Your task to perform on an android device: search for starred emails in the gmail app Image 0: 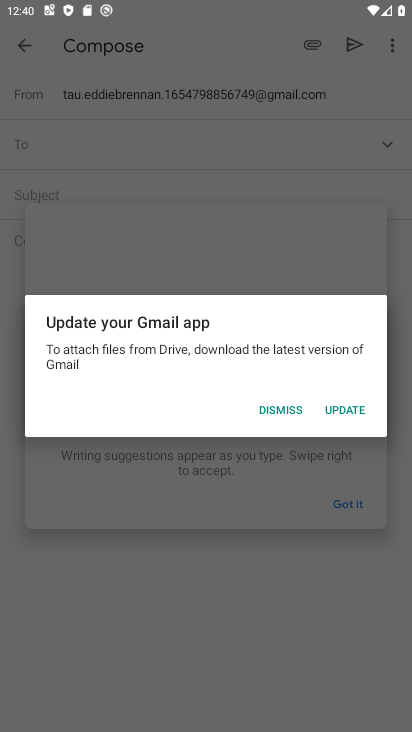
Step 0: press home button
Your task to perform on an android device: search for starred emails in the gmail app Image 1: 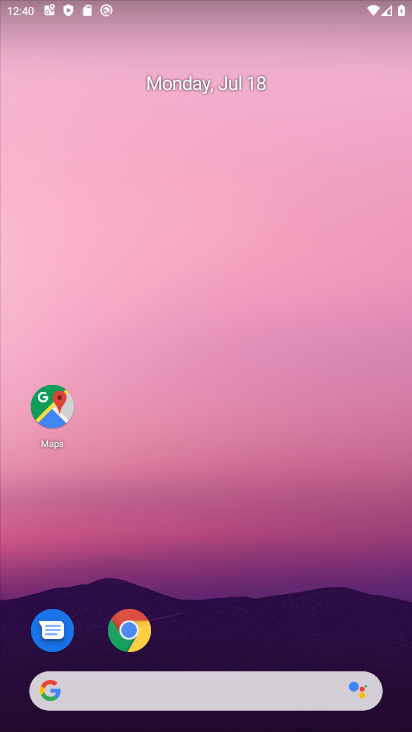
Step 1: drag from (311, 645) to (233, 125)
Your task to perform on an android device: search for starred emails in the gmail app Image 2: 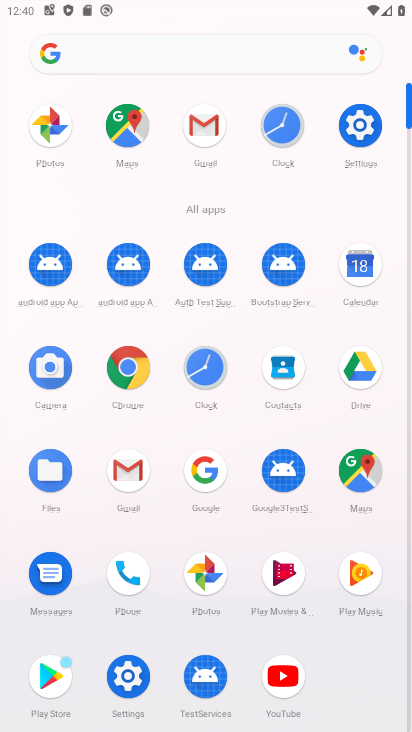
Step 2: click (214, 125)
Your task to perform on an android device: search for starred emails in the gmail app Image 3: 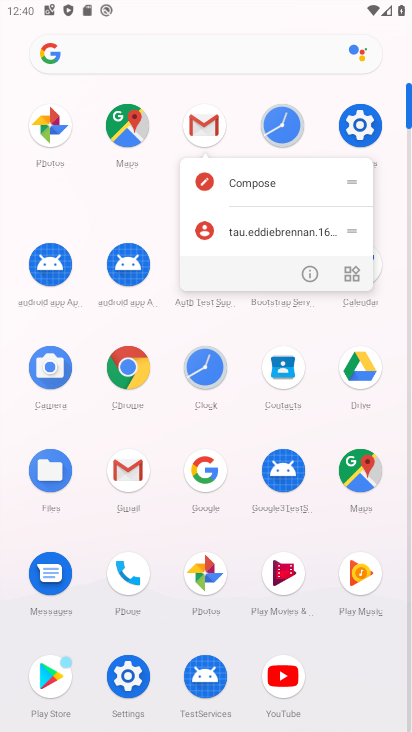
Step 3: click (211, 125)
Your task to perform on an android device: search for starred emails in the gmail app Image 4: 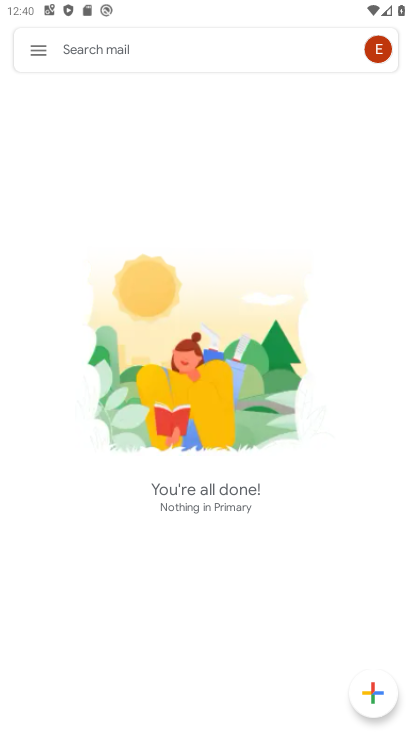
Step 4: click (48, 52)
Your task to perform on an android device: search for starred emails in the gmail app Image 5: 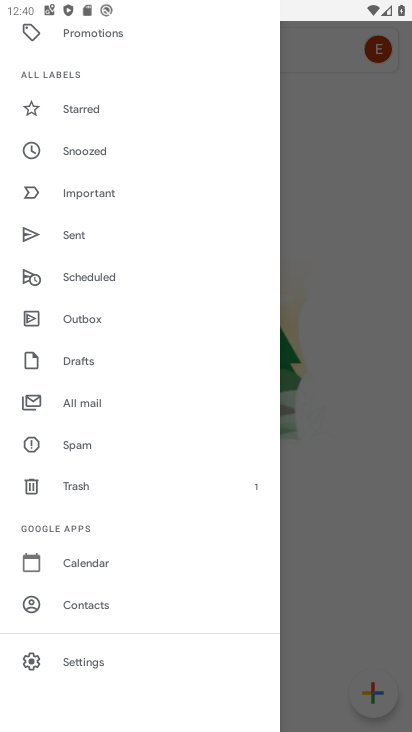
Step 5: click (99, 110)
Your task to perform on an android device: search for starred emails in the gmail app Image 6: 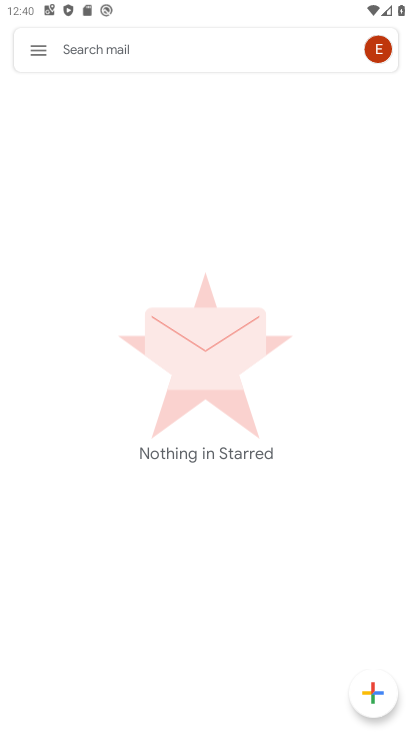
Step 6: task complete